Your task to perform on an android device: Open the Play Movies app and select the watchlist tab. Image 0: 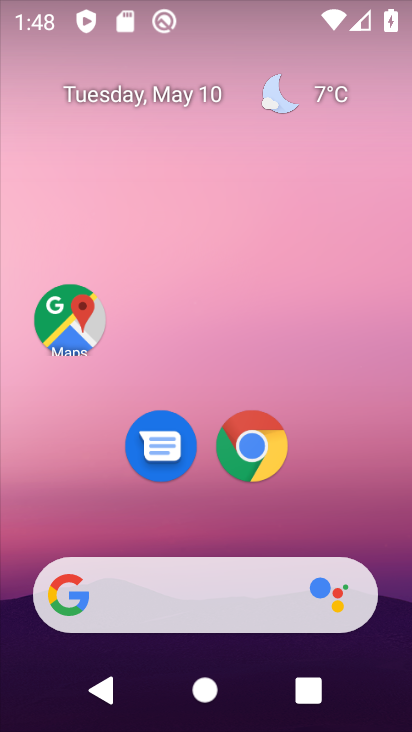
Step 0: drag from (344, 475) to (344, 207)
Your task to perform on an android device: Open the Play Movies app and select the watchlist tab. Image 1: 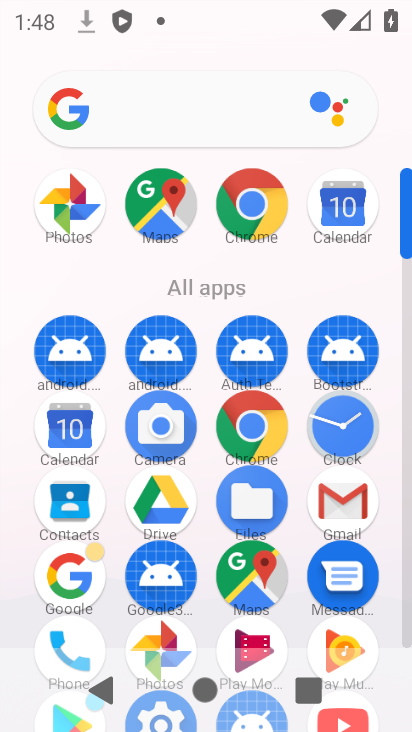
Step 1: drag from (345, 618) to (350, 206)
Your task to perform on an android device: Open the Play Movies app and select the watchlist tab. Image 2: 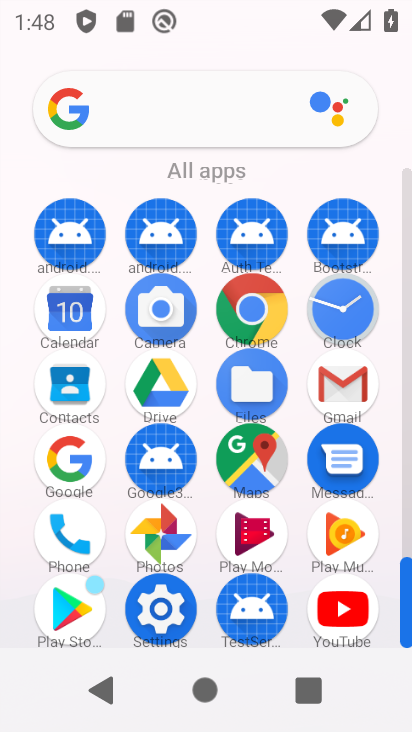
Step 2: click (255, 538)
Your task to perform on an android device: Open the Play Movies app and select the watchlist tab. Image 3: 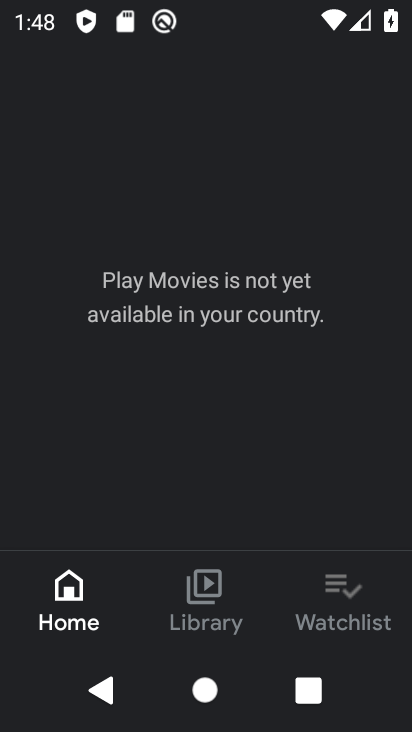
Step 3: click (326, 607)
Your task to perform on an android device: Open the Play Movies app and select the watchlist tab. Image 4: 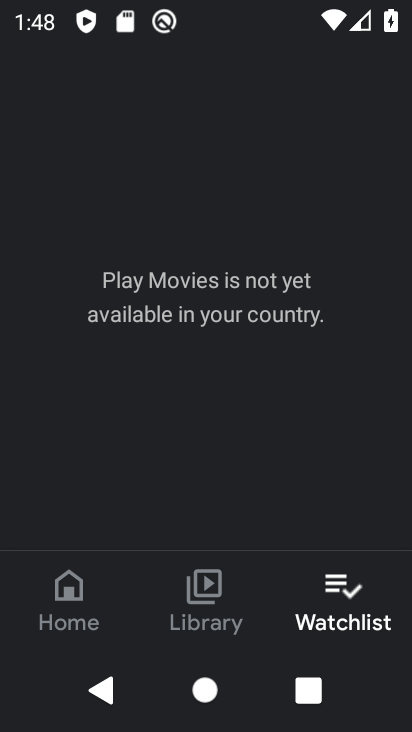
Step 4: task complete